Your task to perform on an android device: Go to ESPN.com Image 0: 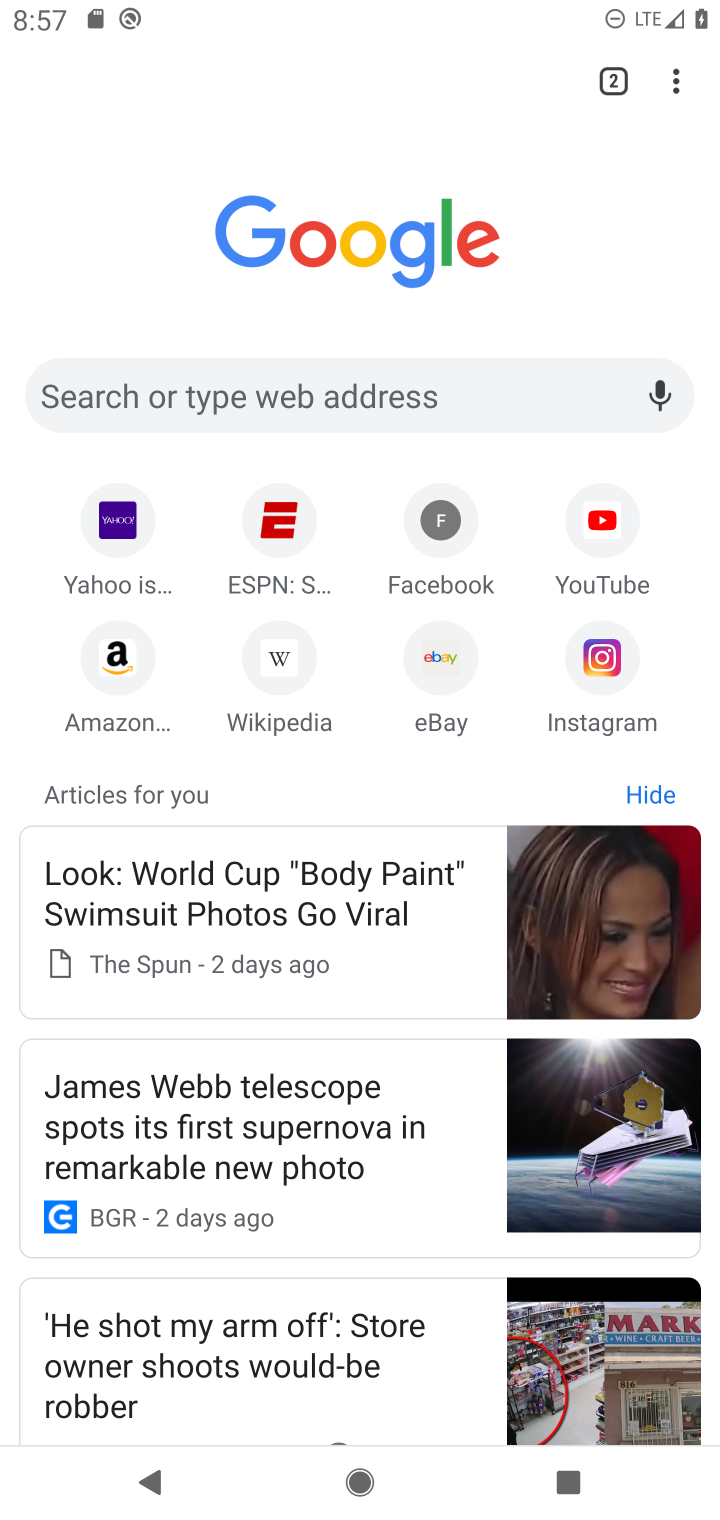
Step 0: click (282, 527)
Your task to perform on an android device: Go to ESPN.com Image 1: 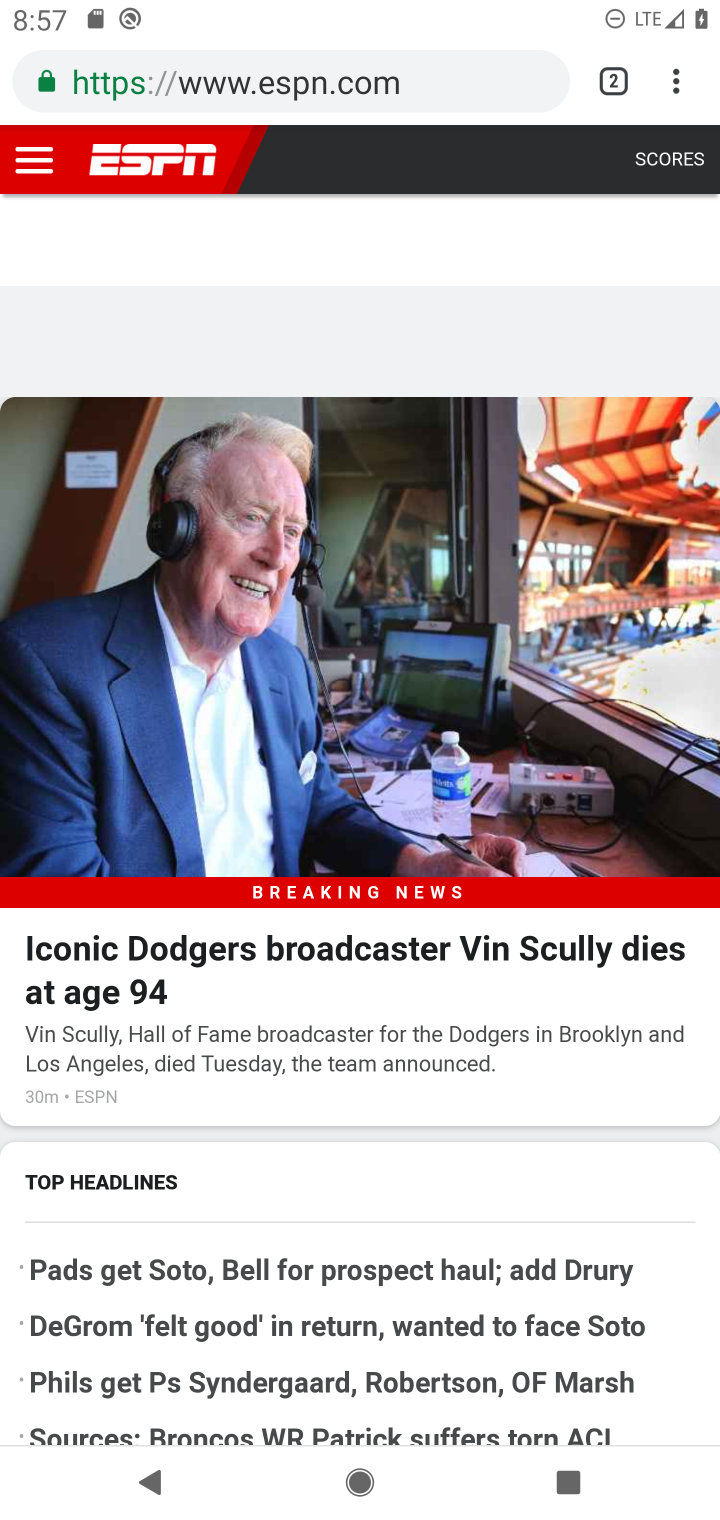
Step 1: task complete